Your task to perform on an android device: Open Google Maps Image 0: 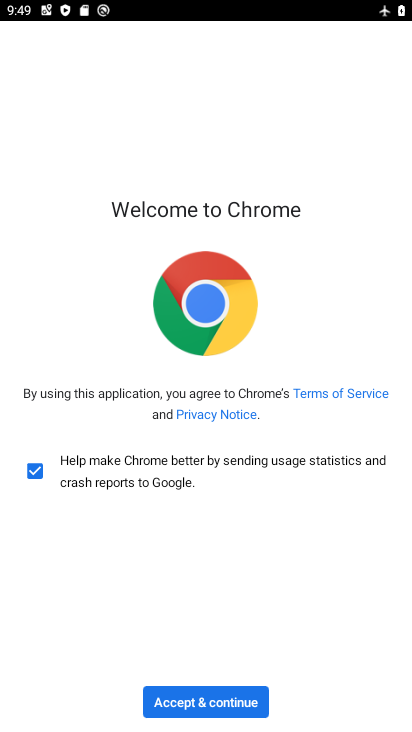
Step 0: press home button
Your task to perform on an android device: Open Google Maps Image 1: 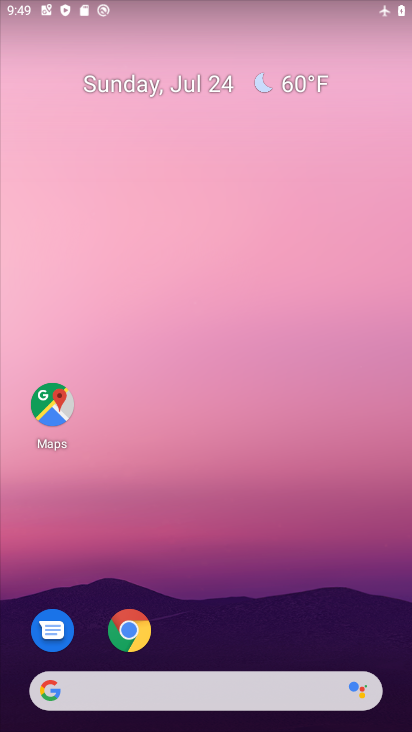
Step 1: click (66, 408)
Your task to perform on an android device: Open Google Maps Image 2: 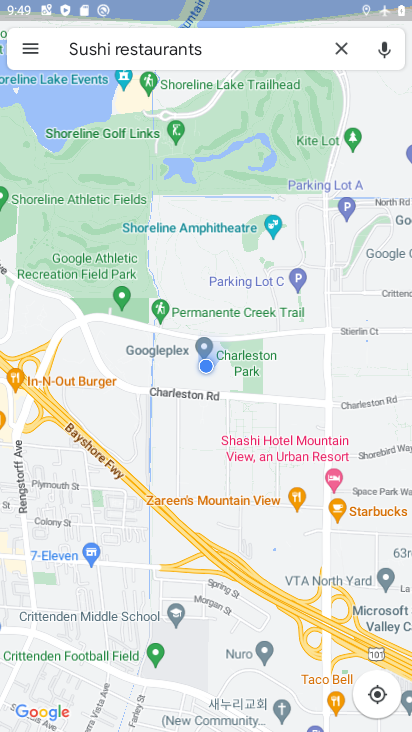
Step 2: task complete